Your task to perform on an android device: move a message to another label in the gmail app Image 0: 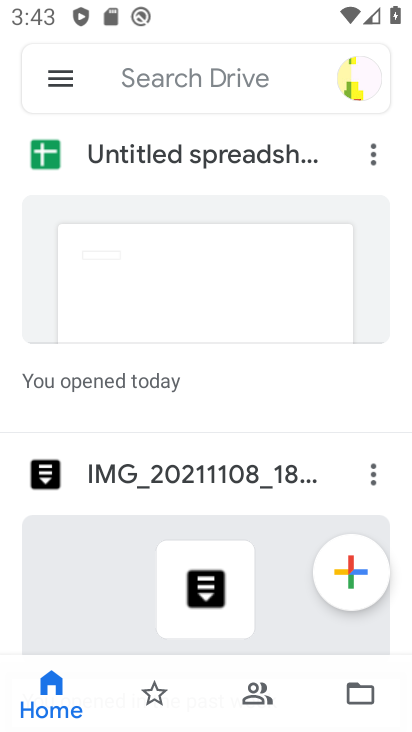
Step 0: press home button
Your task to perform on an android device: move a message to another label in the gmail app Image 1: 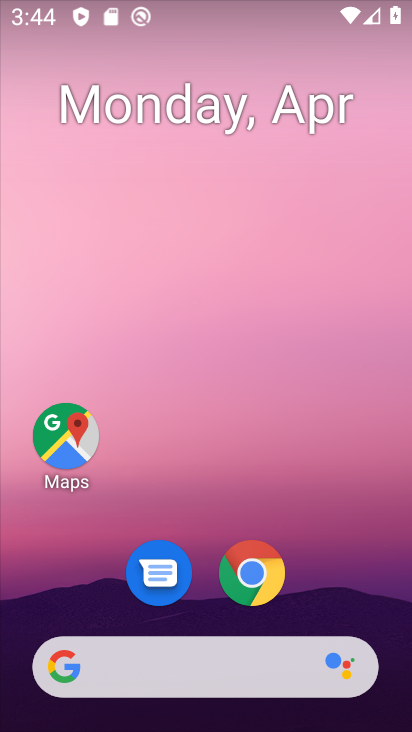
Step 1: drag from (372, 594) to (371, 135)
Your task to perform on an android device: move a message to another label in the gmail app Image 2: 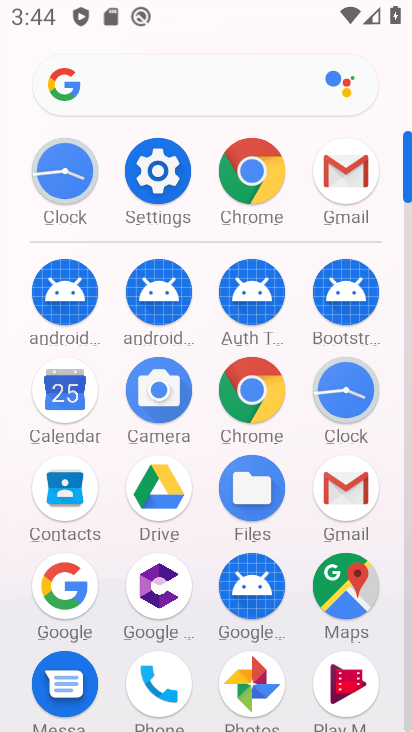
Step 2: click (360, 495)
Your task to perform on an android device: move a message to another label in the gmail app Image 3: 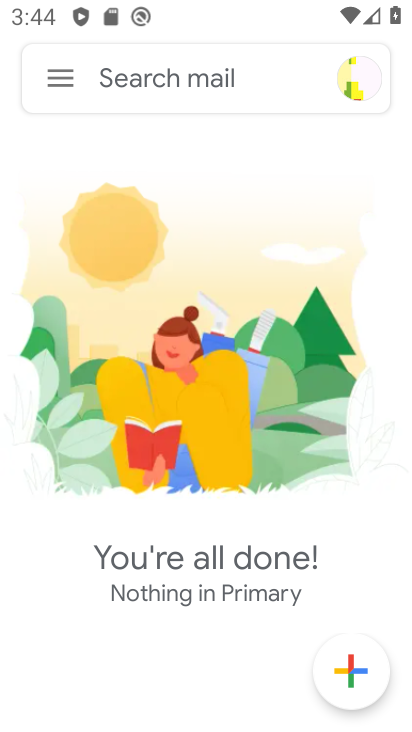
Step 3: click (65, 75)
Your task to perform on an android device: move a message to another label in the gmail app Image 4: 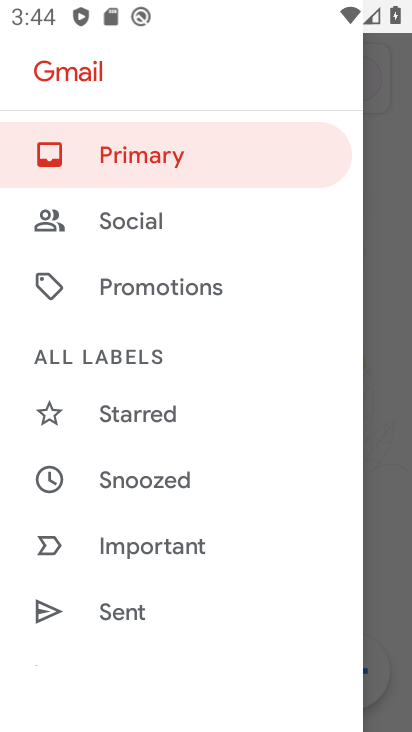
Step 4: drag from (281, 519) to (287, 321)
Your task to perform on an android device: move a message to another label in the gmail app Image 5: 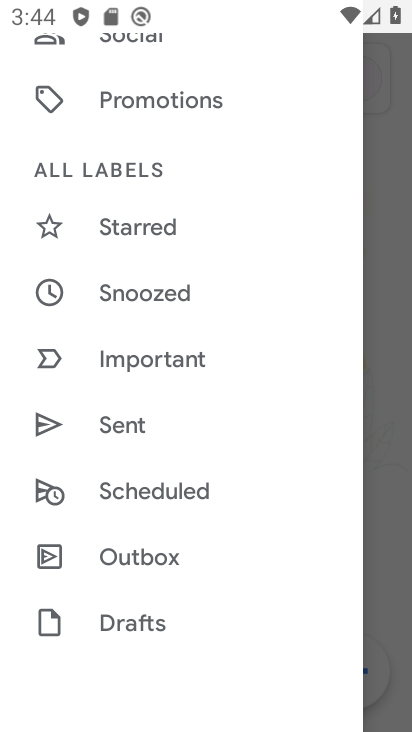
Step 5: drag from (267, 615) to (274, 390)
Your task to perform on an android device: move a message to another label in the gmail app Image 6: 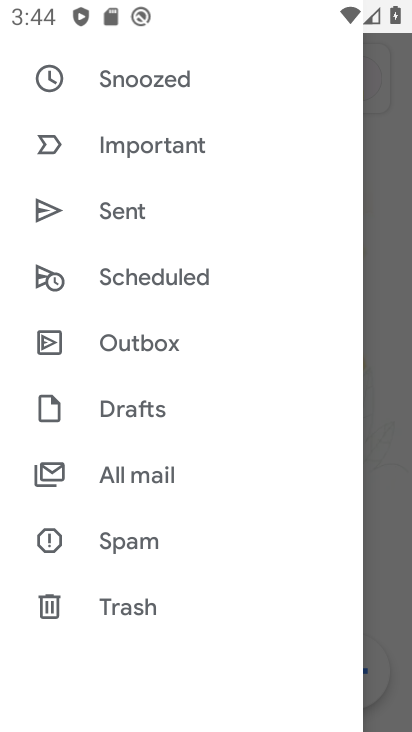
Step 6: drag from (282, 578) to (274, 388)
Your task to perform on an android device: move a message to another label in the gmail app Image 7: 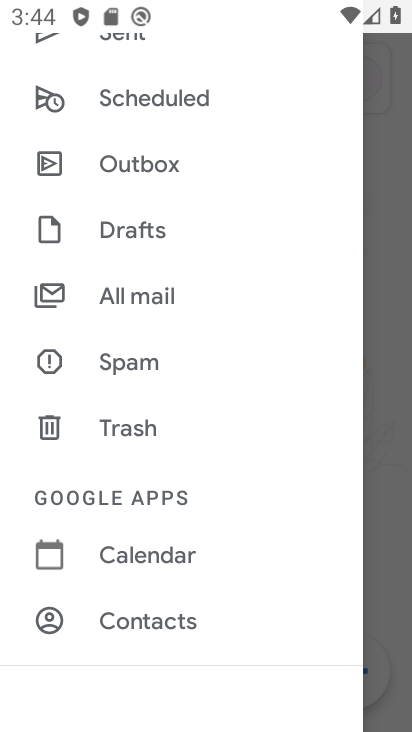
Step 7: drag from (288, 583) to (288, 392)
Your task to perform on an android device: move a message to another label in the gmail app Image 8: 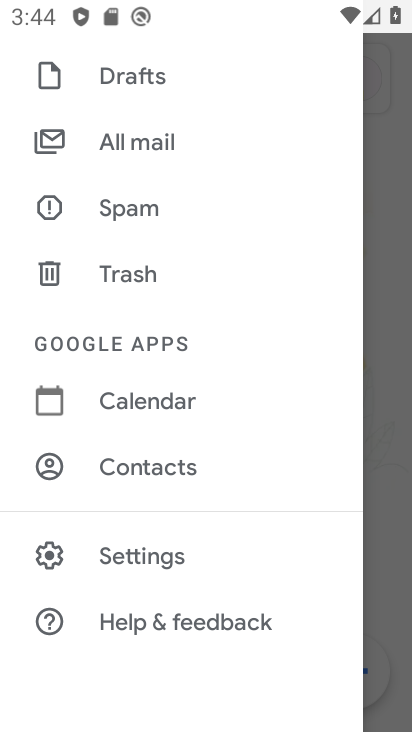
Step 8: drag from (308, 585) to (289, 397)
Your task to perform on an android device: move a message to another label in the gmail app Image 9: 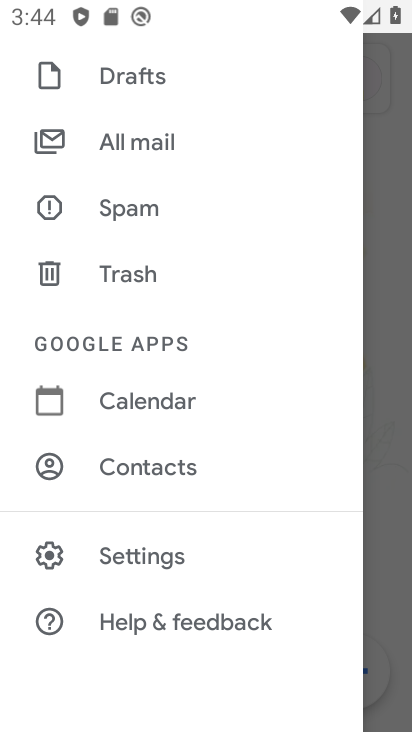
Step 9: drag from (292, 256) to (285, 456)
Your task to perform on an android device: move a message to another label in the gmail app Image 10: 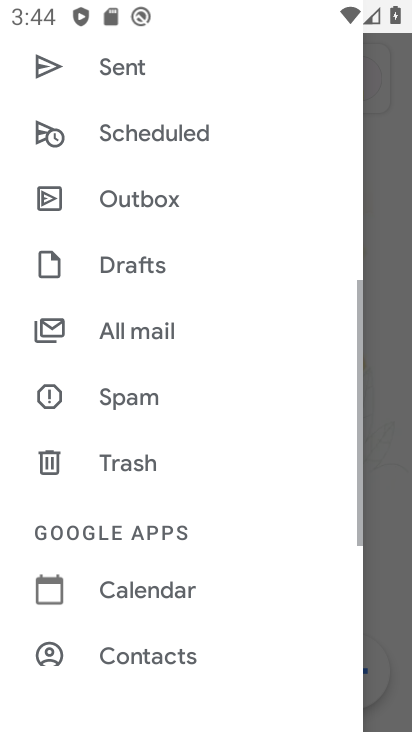
Step 10: drag from (270, 252) to (254, 456)
Your task to perform on an android device: move a message to another label in the gmail app Image 11: 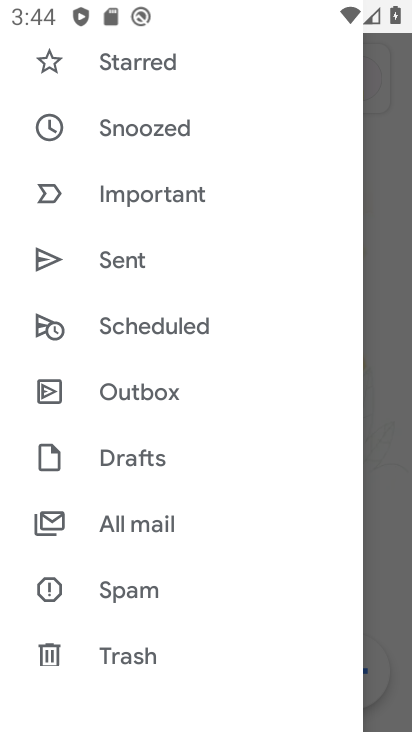
Step 11: drag from (239, 232) to (235, 421)
Your task to perform on an android device: move a message to another label in the gmail app Image 12: 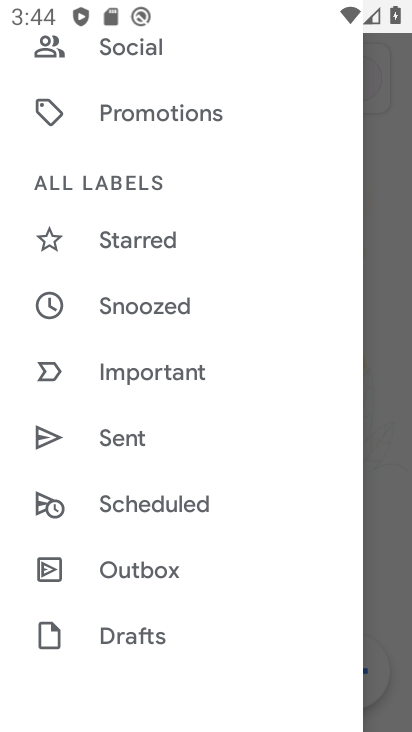
Step 12: drag from (241, 207) to (246, 447)
Your task to perform on an android device: move a message to another label in the gmail app Image 13: 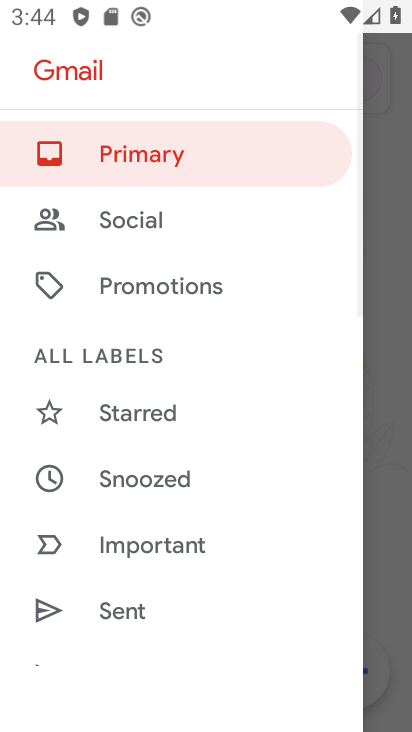
Step 13: click (198, 163)
Your task to perform on an android device: move a message to another label in the gmail app Image 14: 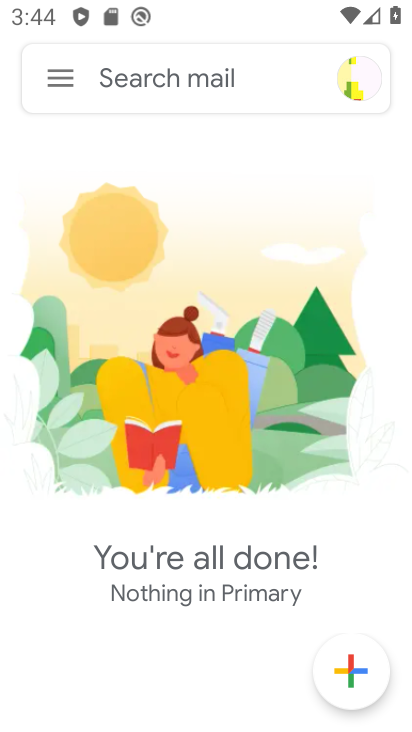
Step 14: task complete